Your task to perform on an android device: allow cookies in the chrome app Image 0: 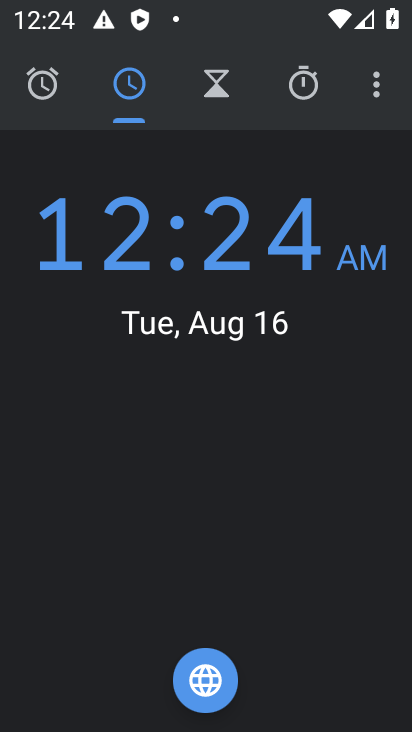
Step 0: press home button
Your task to perform on an android device: allow cookies in the chrome app Image 1: 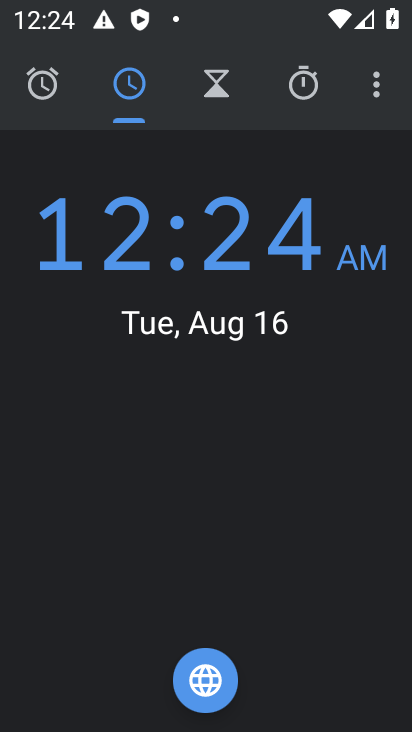
Step 1: press home button
Your task to perform on an android device: allow cookies in the chrome app Image 2: 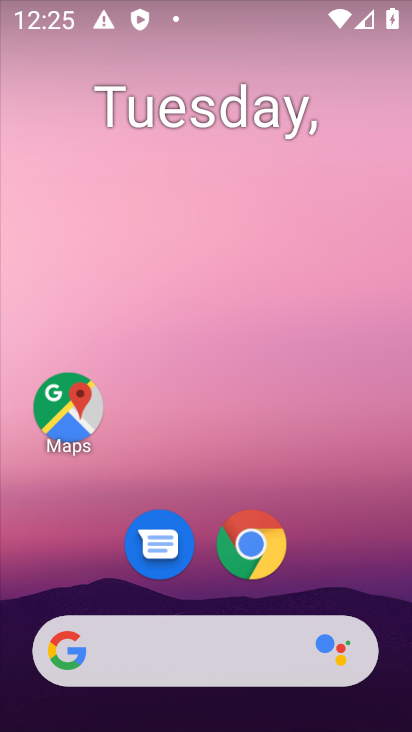
Step 2: drag from (333, 557) to (207, 123)
Your task to perform on an android device: allow cookies in the chrome app Image 3: 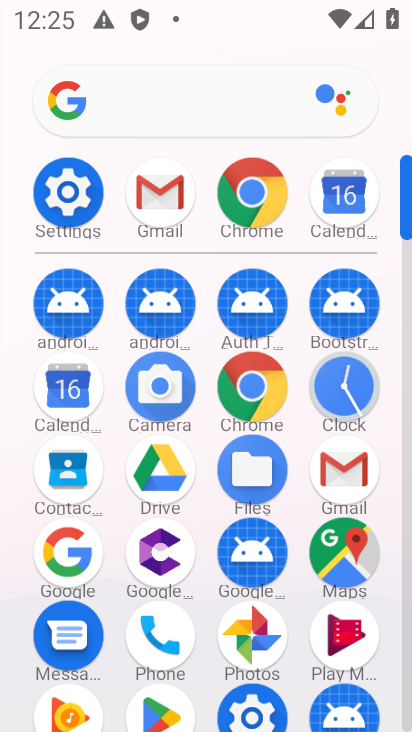
Step 3: click (260, 394)
Your task to perform on an android device: allow cookies in the chrome app Image 4: 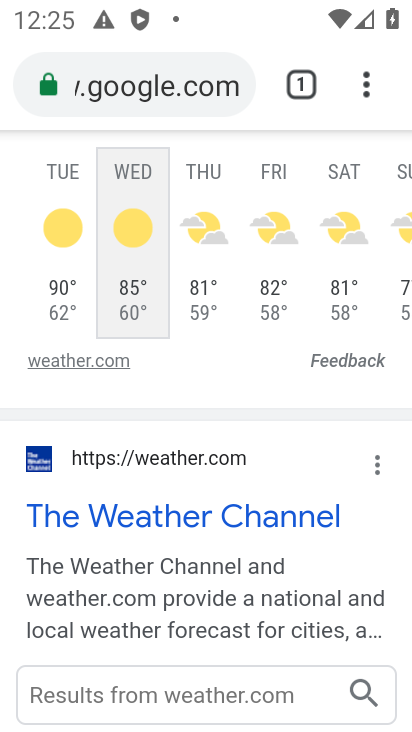
Step 4: drag from (377, 64) to (78, 599)
Your task to perform on an android device: allow cookies in the chrome app Image 5: 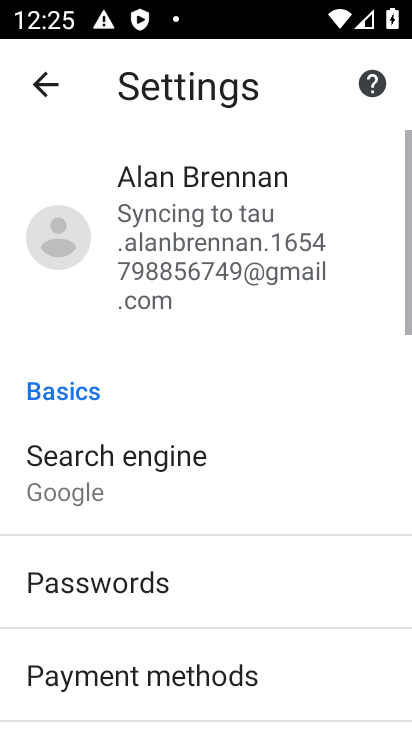
Step 5: drag from (245, 587) to (292, 12)
Your task to perform on an android device: allow cookies in the chrome app Image 6: 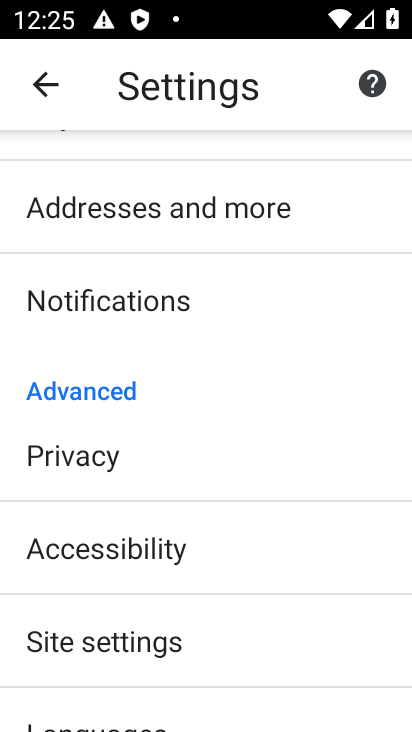
Step 6: drag from (234, 527) to (236, 156)
Your task to perform on an android device: allow cookies in the chrome app Image 7: 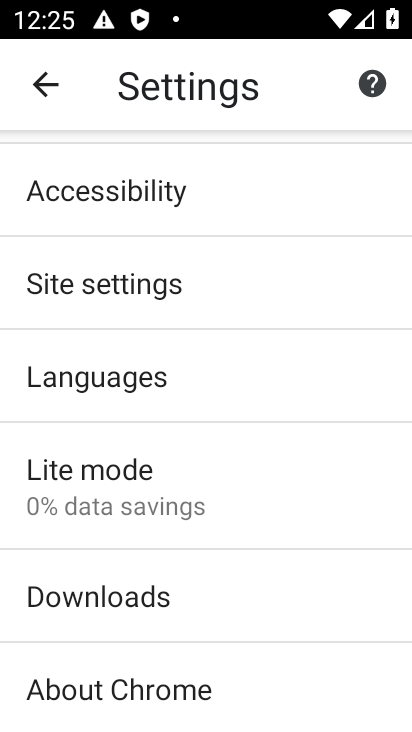
Step 7: click (124, 298)
Your task to perform on an android device: allow cookies in the chrome app Image 8: 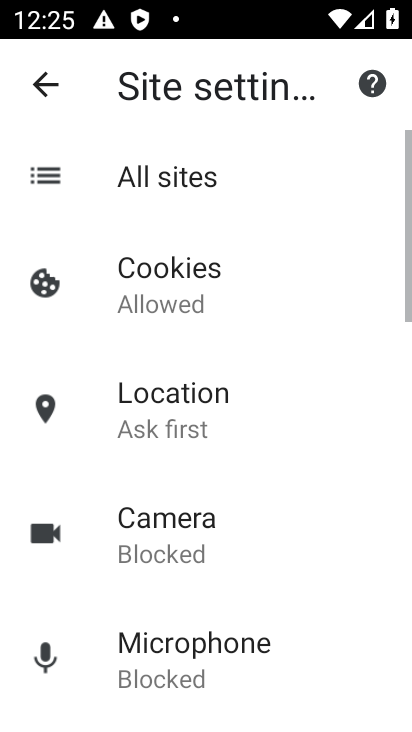
Step 8: click (122, 269)
Your task to perform on an android device: allow cookies in the chrome app Image 9: 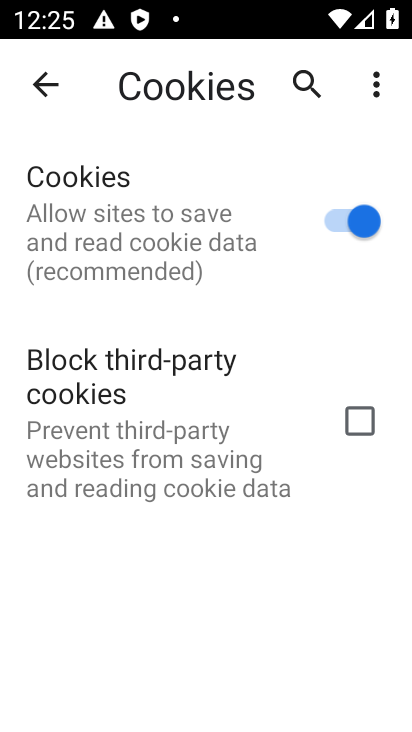
Step 9: task complete